Your task to perform on an android device: Open Reddit.com Image 0: 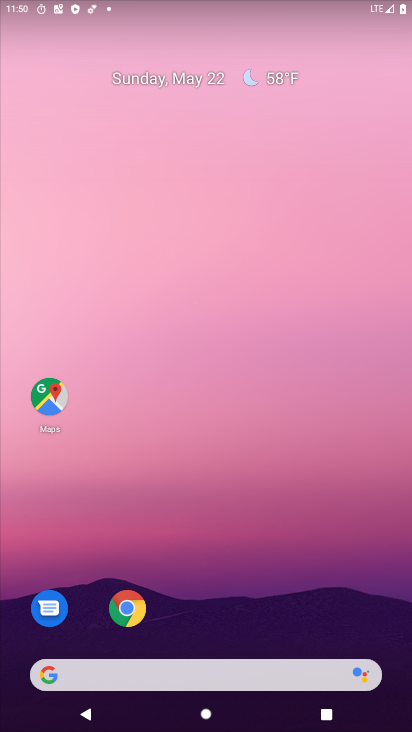
Step 0: drag from (229, 611) to (248, 167)
Your task to perform on an android device: Open Reddit.com Image 1: 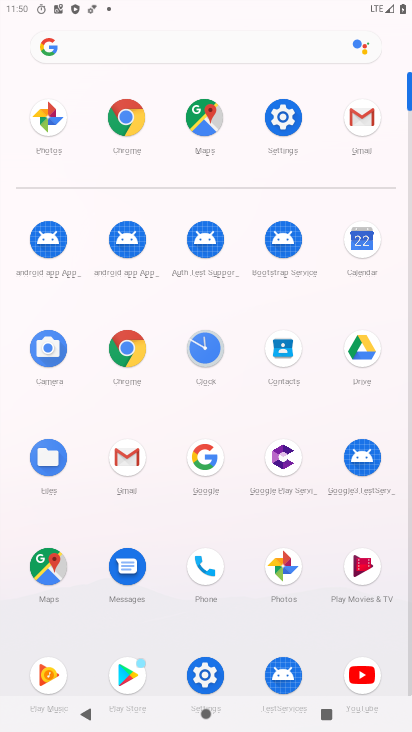
Step 1: click (128, 123)
Your task to perform on an android device: Open Reddit.com Image 2: 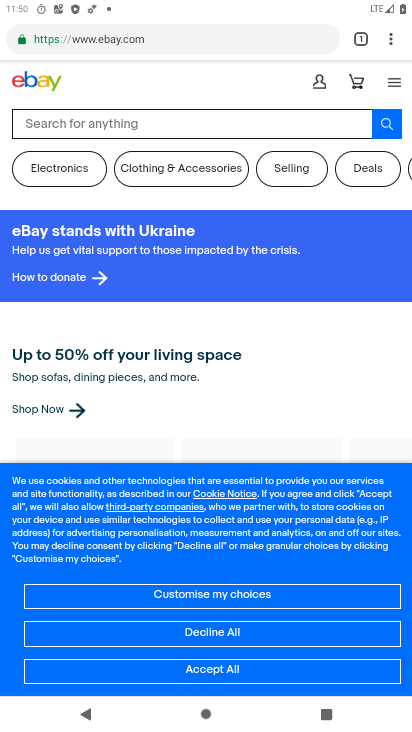
Step 2: click (205, 31)
Your task to perform on an android device: Open Reddit.com Image 3: 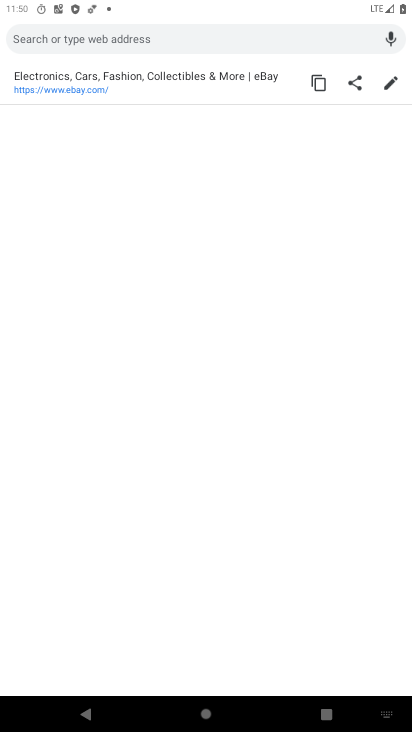
Step 3: type "Reddit.com"
Your task to perform on an android device: Open Reddit.com Image 4: 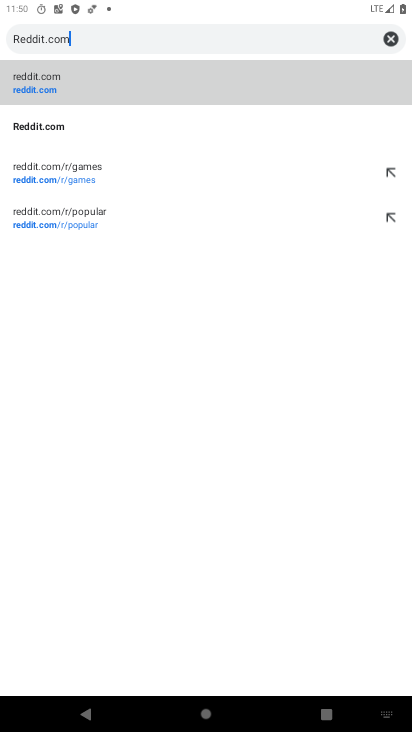
Step 4: click (40, 83)
Your task to perform on an android device: Open Reddit.com Image 5: 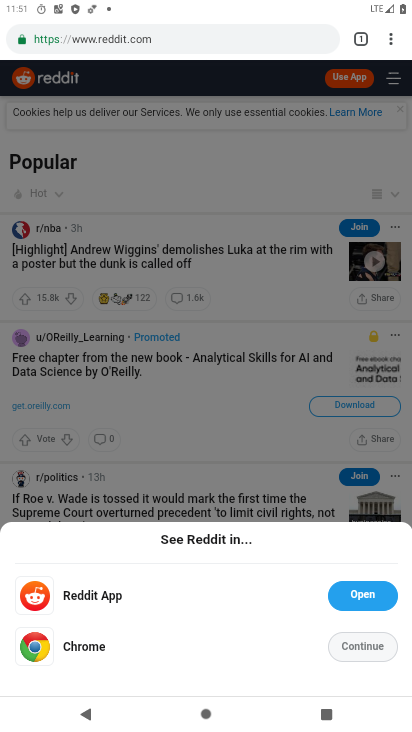
Step 5: task complete